Your task to perform on an android device: Search for sushi restaurants on Maps Image 0: 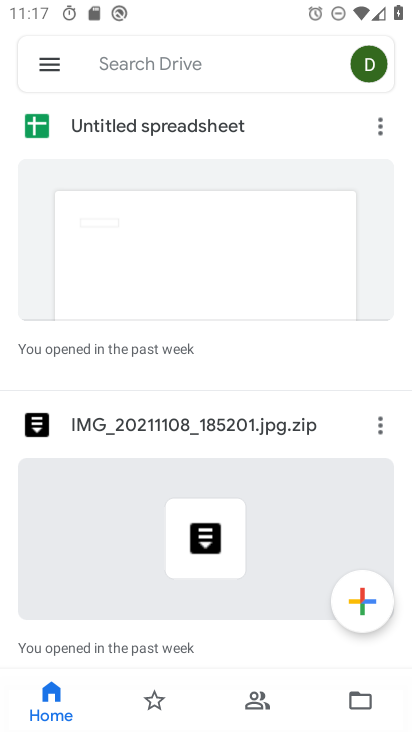
Step 0: press home button
Your task to perform on an android device: Search for sushi restaurants on Maps Image 1: 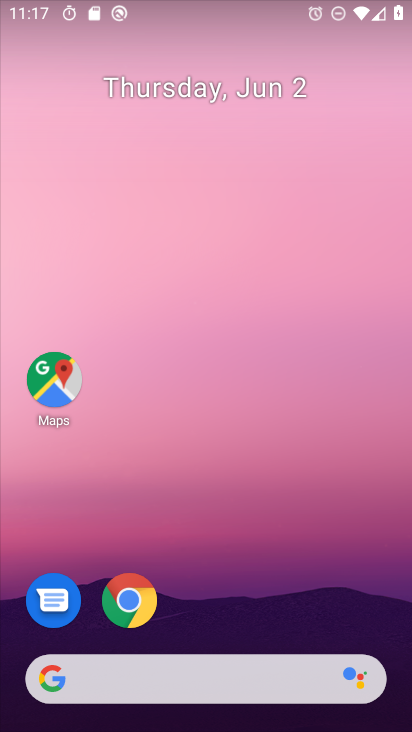
Step 1: click (49, 384)
Your task to perform on an android device: Search for sushi restaurants on Maps Image 2: 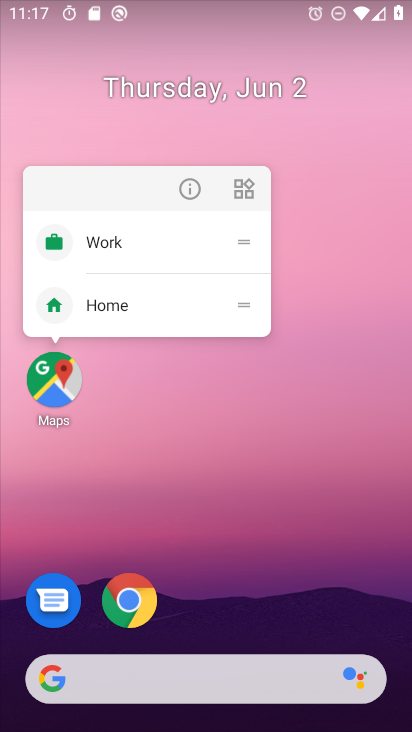
Step 2: click (155, 463)
Your task to perform on an android device: Search for sushi restaurants on Maps Image 3: 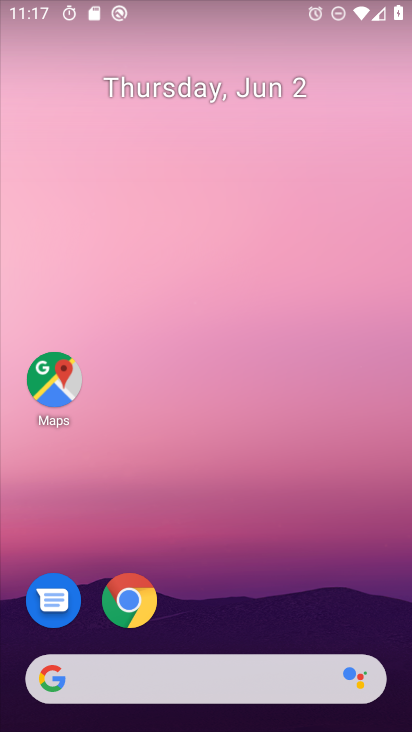
Step 3: click (59, 383)
Your task to perform on an android device: Search for sushi restaurants on Maps Image 4: 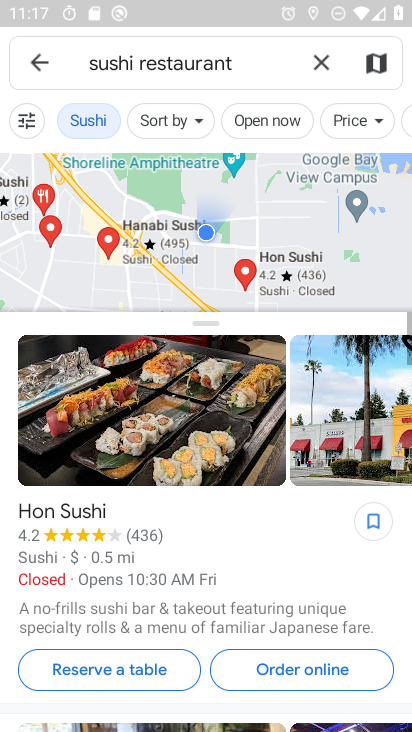
Step 4: task complete